Your task to perform on an android device: change the clock display to show seconds Image 0: 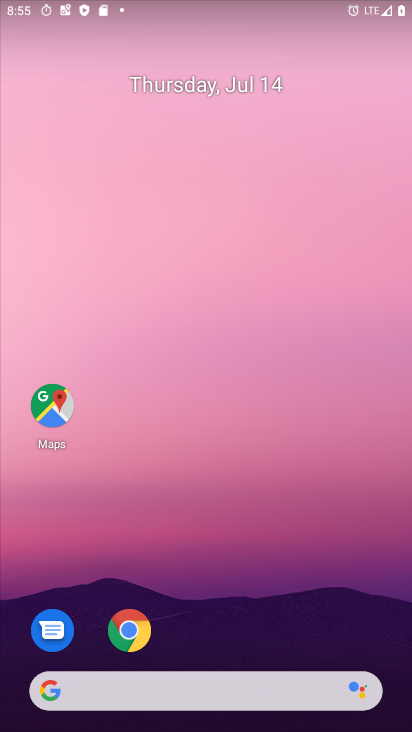
Step 0: drag from (244, 705) to (245, 216)
Your task to perform on an android device: change the clock display to show seconds Image 1: 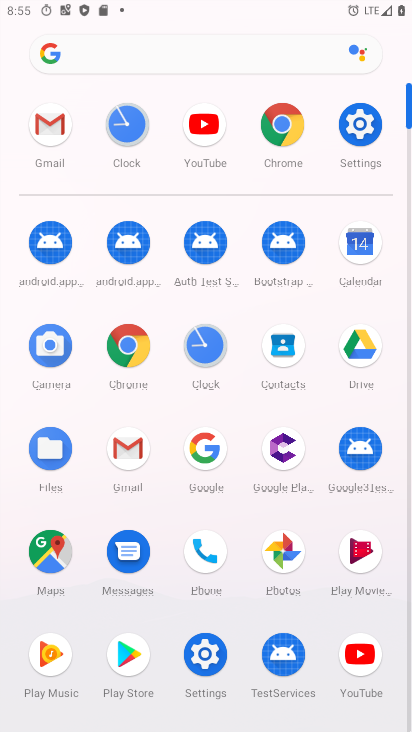
Step 1: click (210, 343)
Your task to perform on an android device: change the clock display to show seconds Image 2: 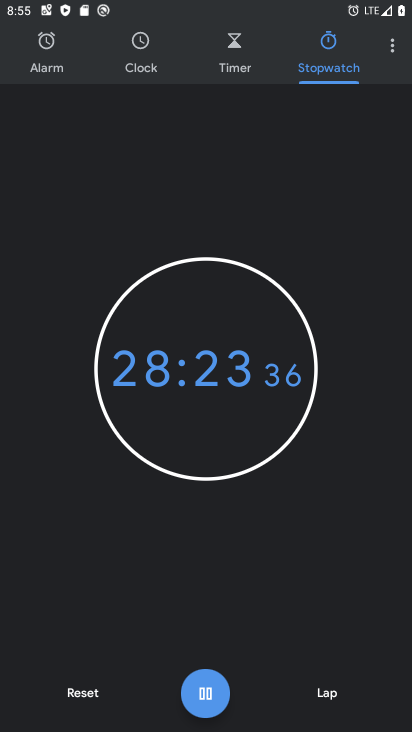
Step 2: click (394, 50)
Your task to perform on an android device: change the clock display to show seconds Image 3: 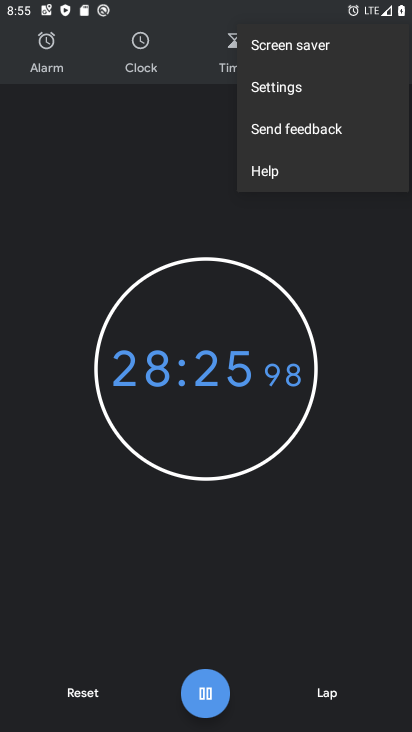
Step 3: click (270, 91)
Your task to perform on an android device: change the clock display to show seconds Image 4: 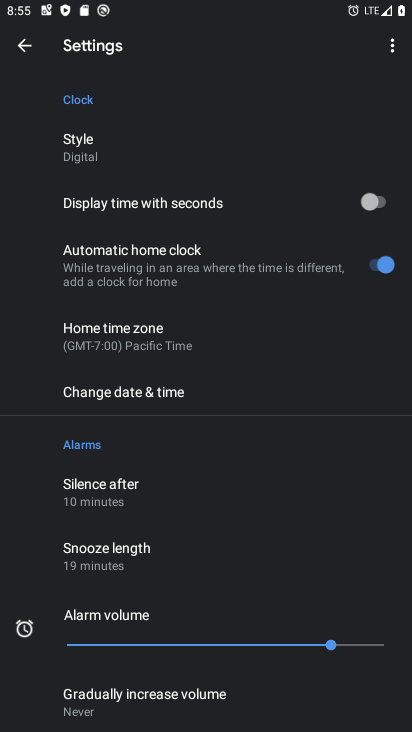
Step 4: click (381, 202)
Your task to perform on an android device: change the clock display to show seconds Image 5: 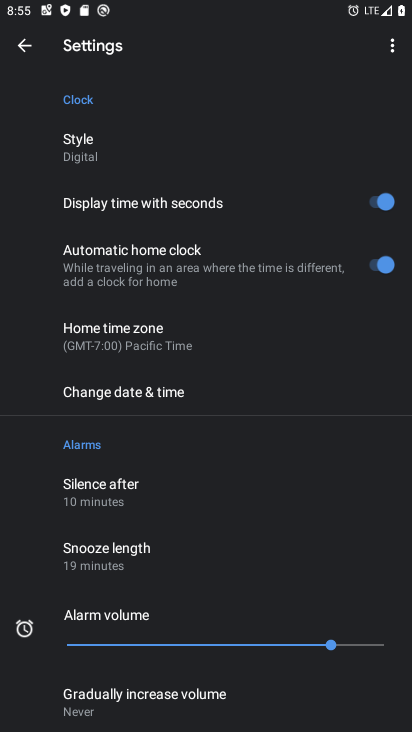
Step 5: task complete